Your task to perform on an android device: Open sound settings Image 0: 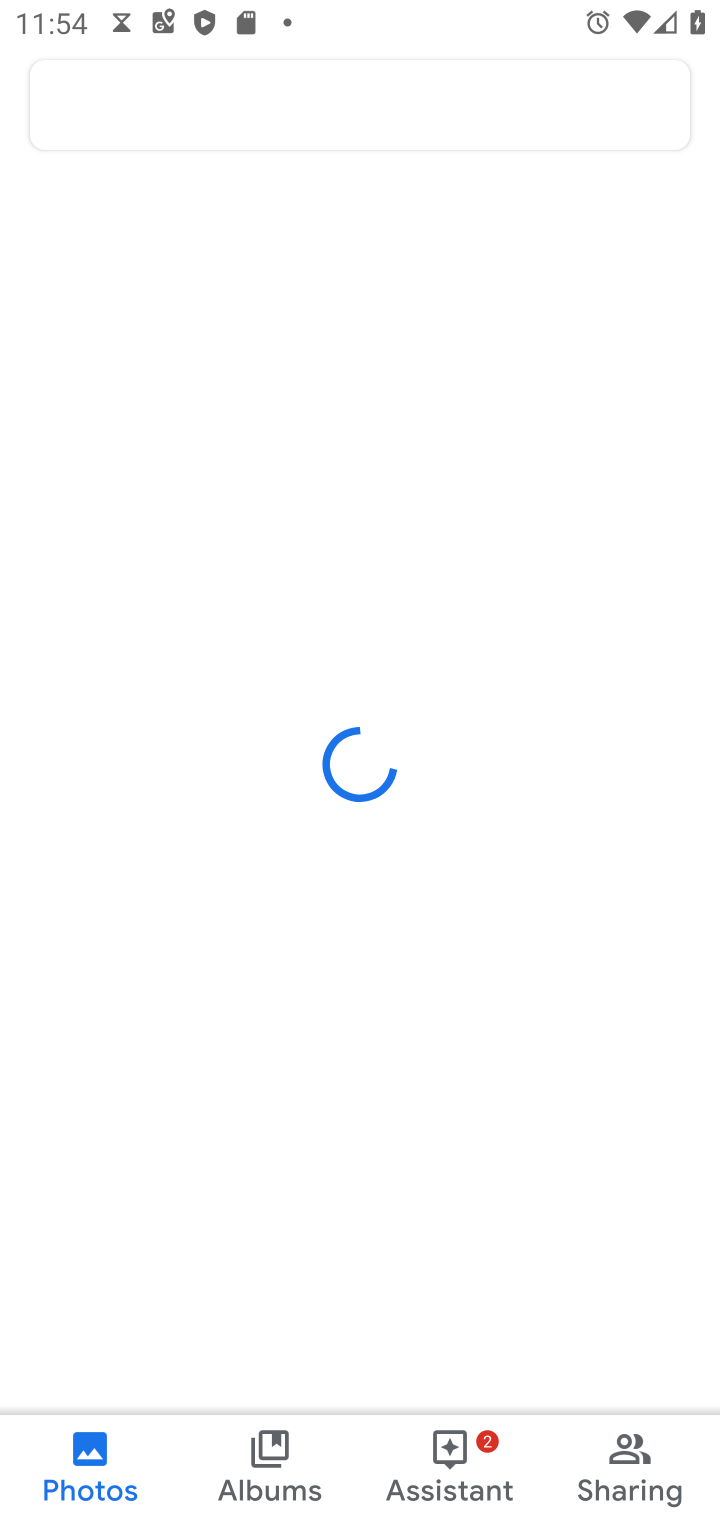
Step 0: press home button
Your task to perform on an android device: Open sound settings Image 1: 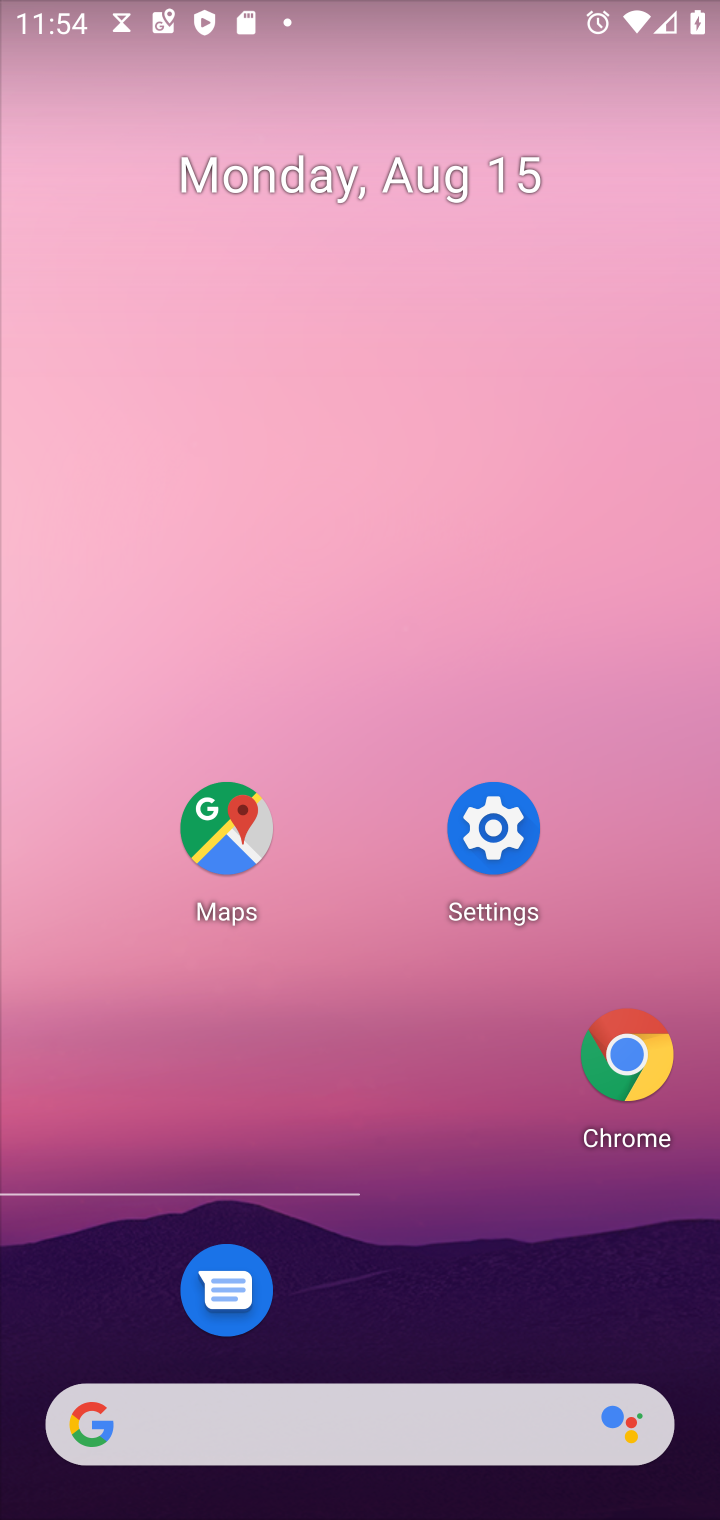
Step 1: press home button
Your task to perform on an android device: Open sound settings Image 2: 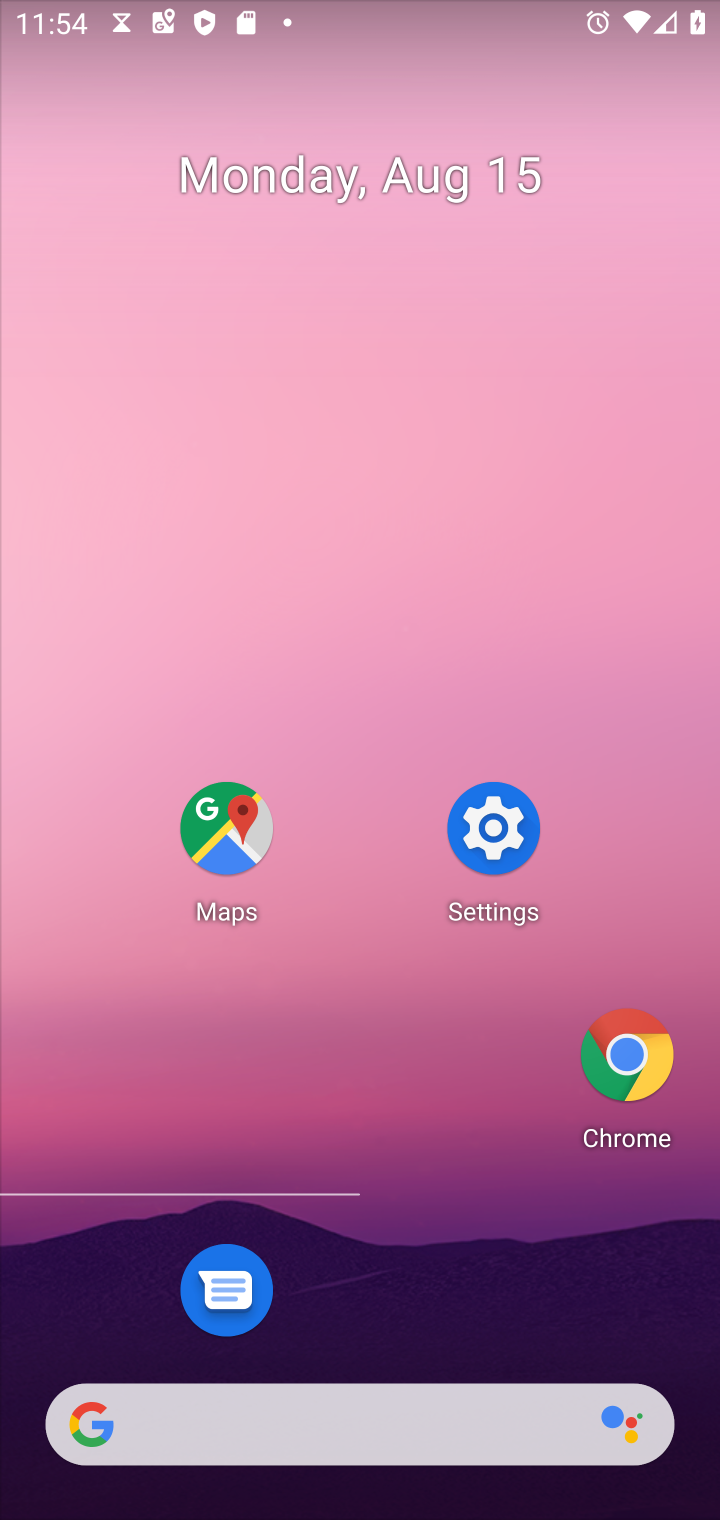
Step 2: click (506, 832)
Your task to perform on an android device: Open sound settings Image 3: 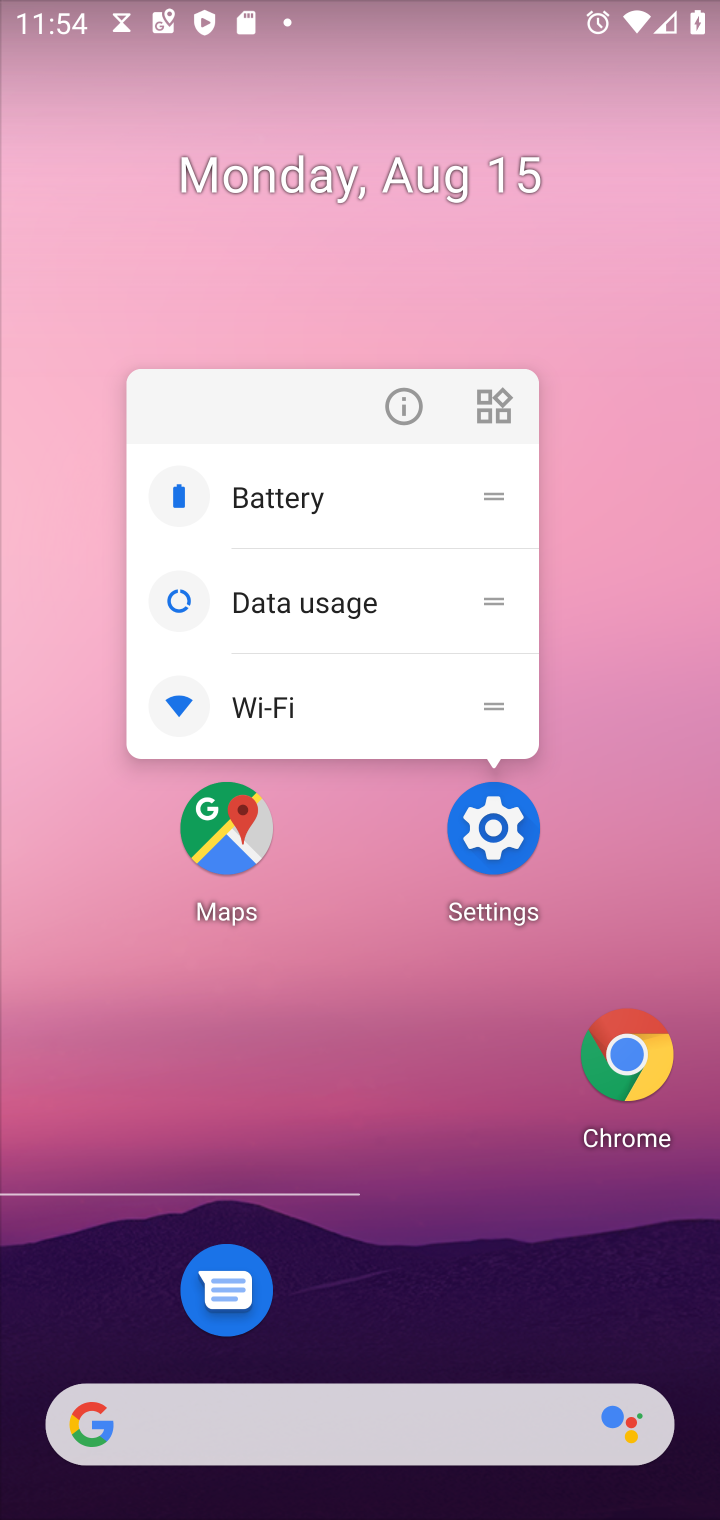
Step 3: click (472, 835)
Your task to perform on an android device: Open sound settings Image 4: 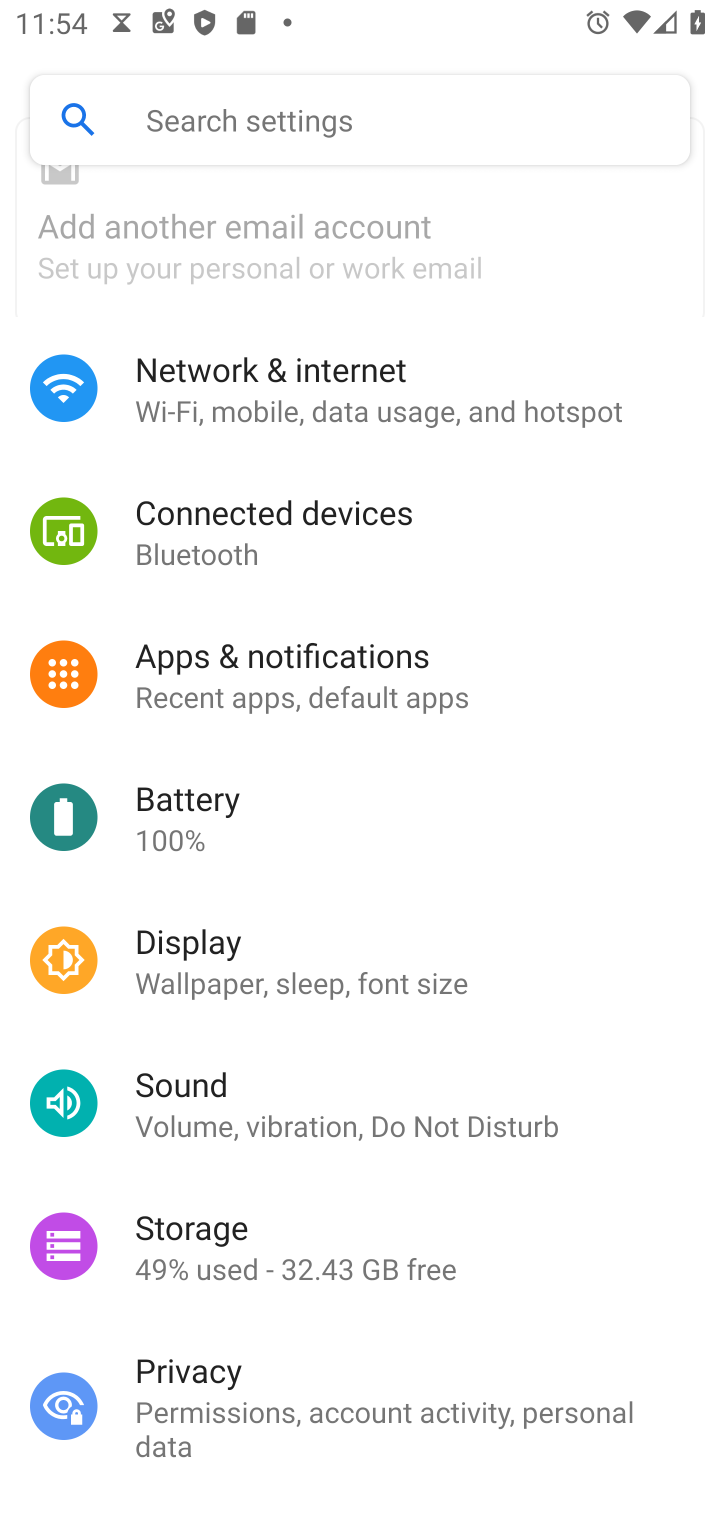
Step 4: click (472, 840)
Your task to perform on an android device: Open sound settings Image 5: 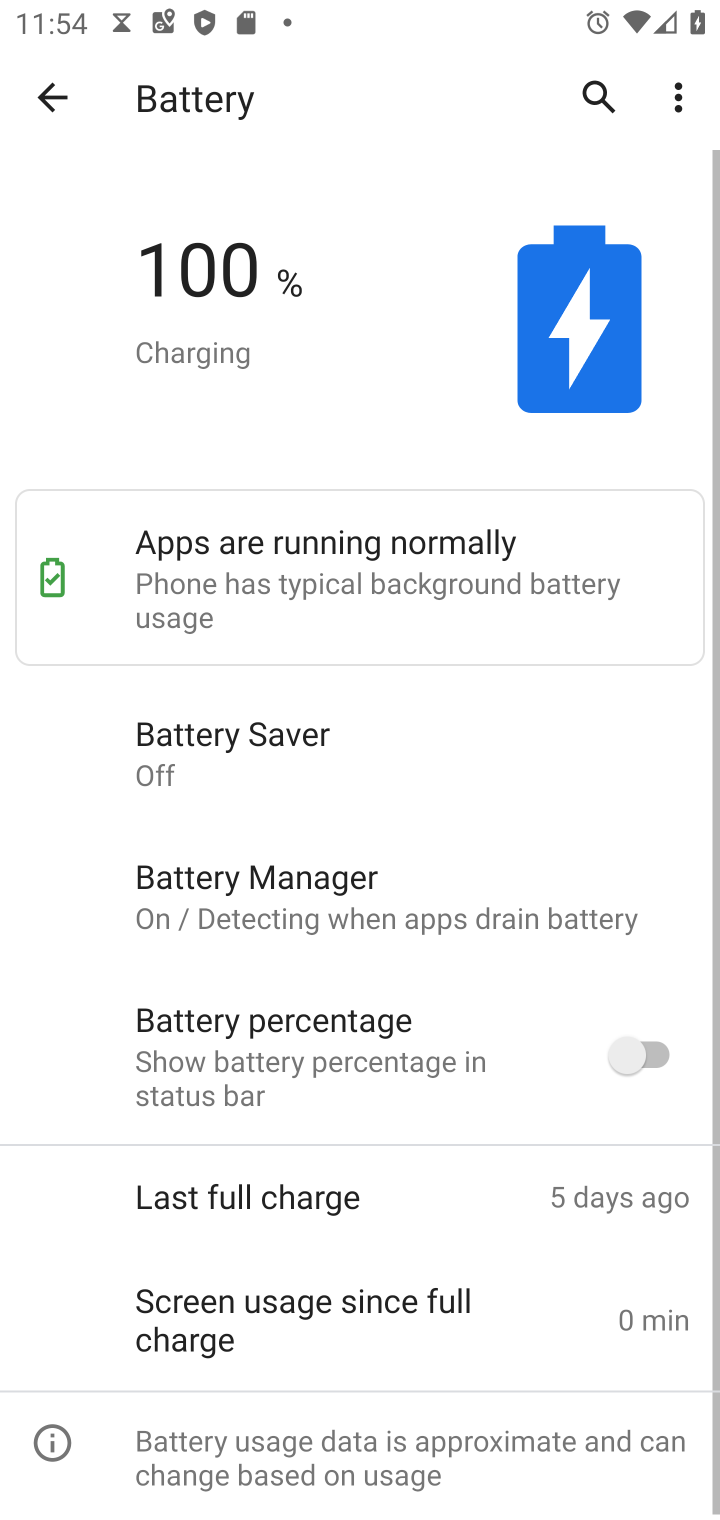
Step 5: press back button
Your task to perform on an android device: Open sound settings Image 6: 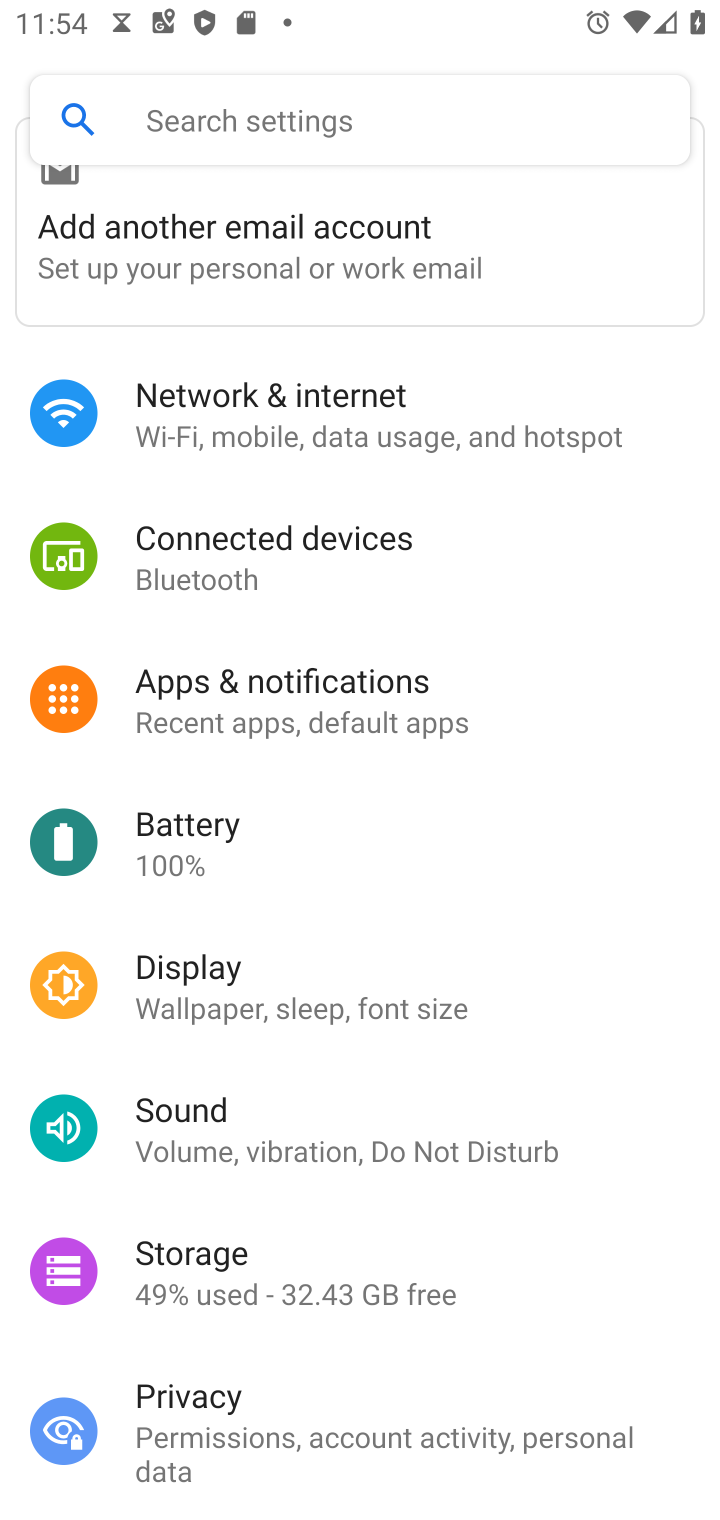
Step 6: click (197, 1130)
Your task to perform on an android device: Open sound settings Image 7: 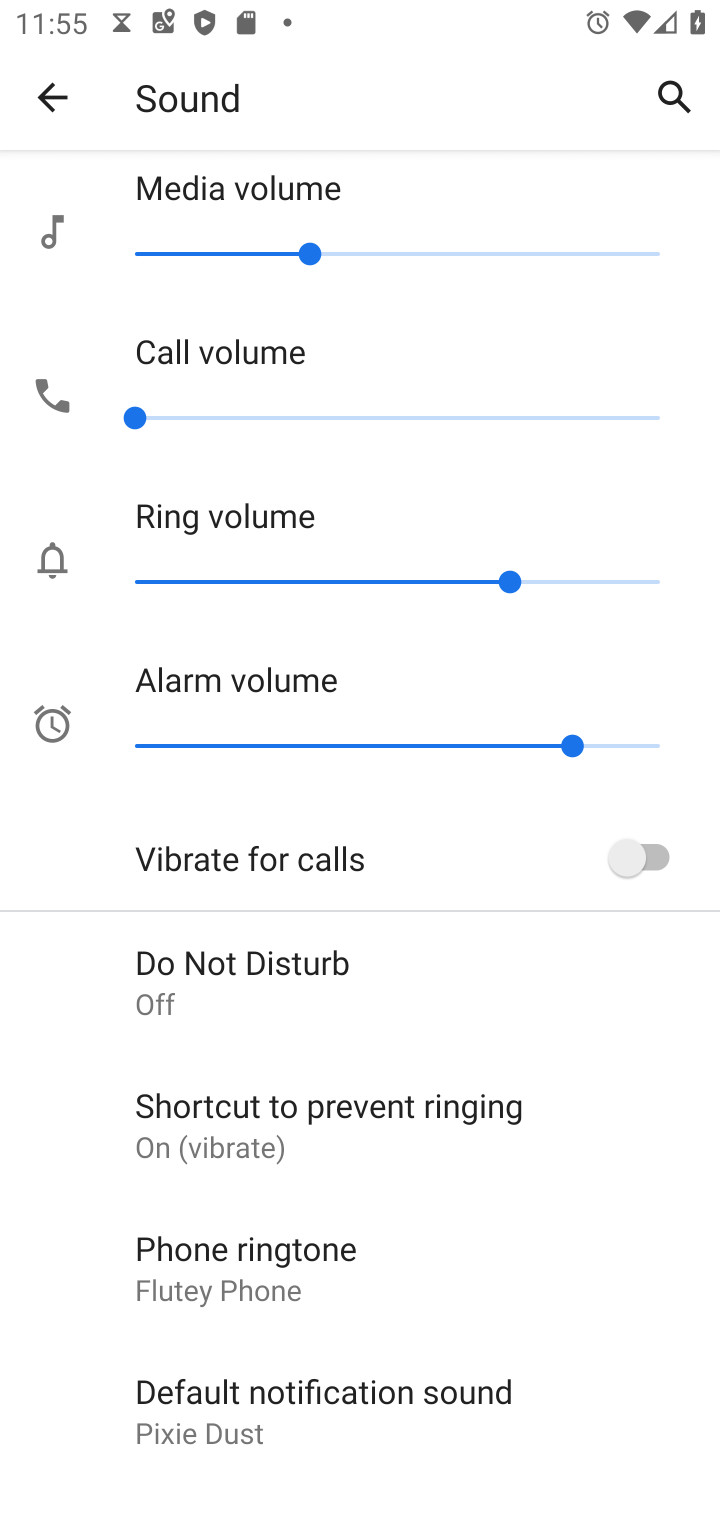
Step 7: task complete